Your task to perform on an android device: turn on priority inbox in the gmail app Image 0: 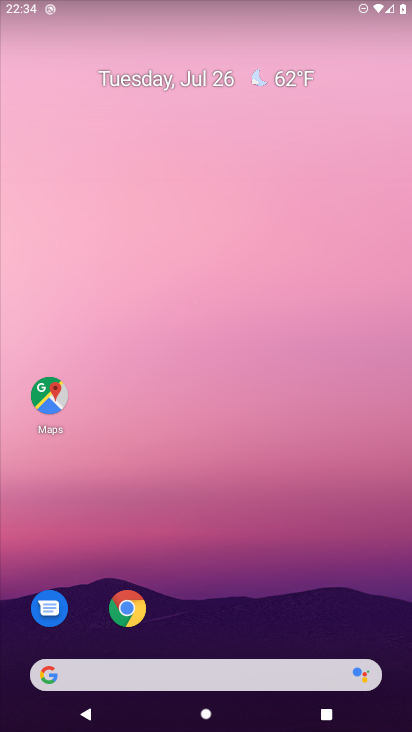
Step 0: drag from (22, 694) to (197, 192)
Your task to perform on an android device: turn on priority inbox in the gmail app Image 1: 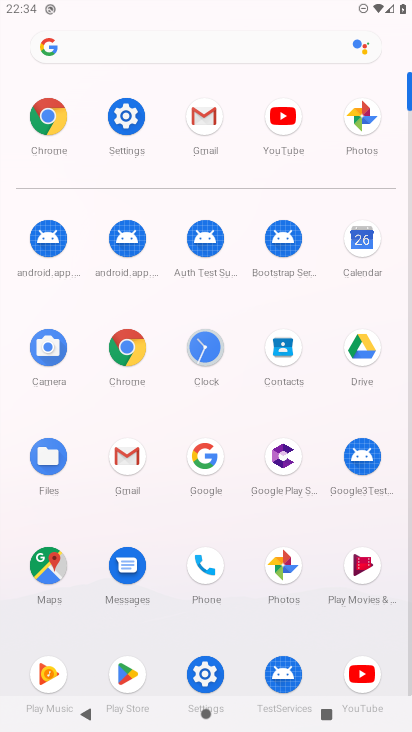
Step 1: click (123, 458)
Your task to perform on an android device: turn on priority inbox in the gmail app Image 2: 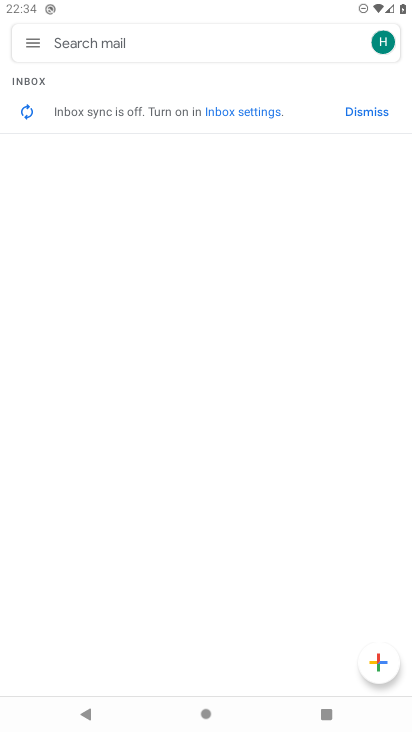
Step 2: click (35, 49)
Your task to perform on an android device: turn on priority inbox in the gmail app Image 3: 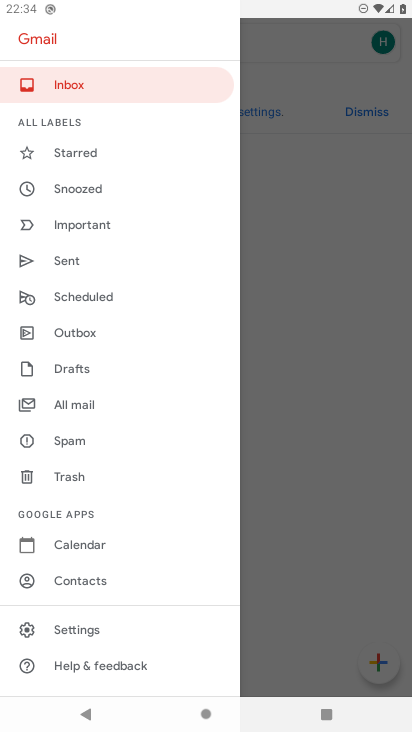
Step 3: click (89, 618)
Your task to perform on an android device: turn on priority inbox in the gmail app Image 4: 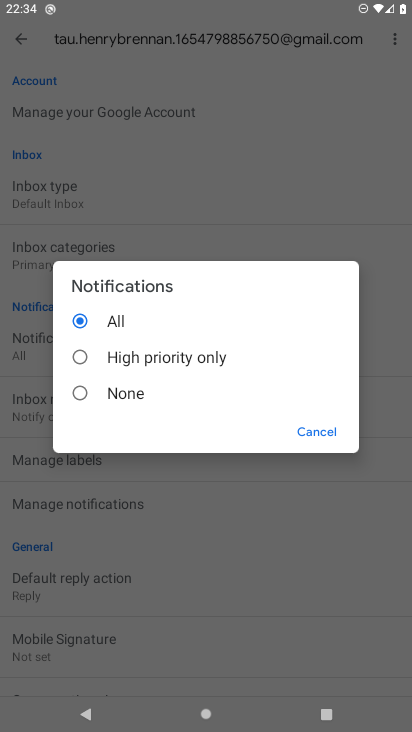
Step 4: click (307, 429)
Your task to perform on an android device: turn on priority inbox in the gmail app Image 5: 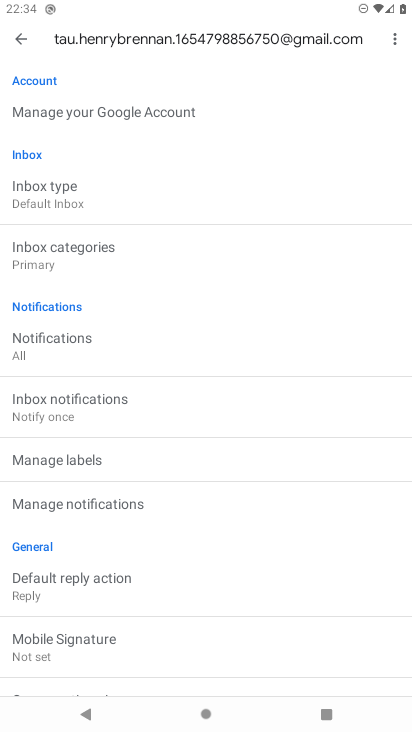
Step 5: click (61, 191)
Your task to perform on an android device: turn on priority inbox in the gmail app Image 6: 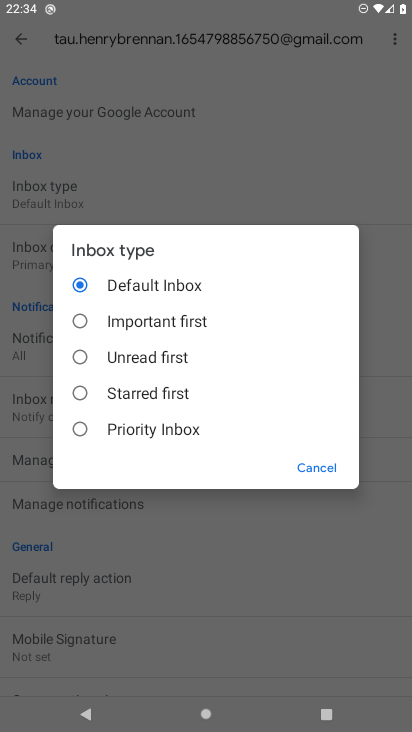
Step 6: click (85, 436)
Your task to perform on an android device: turn on priority inbox in the gmail app Image 7: 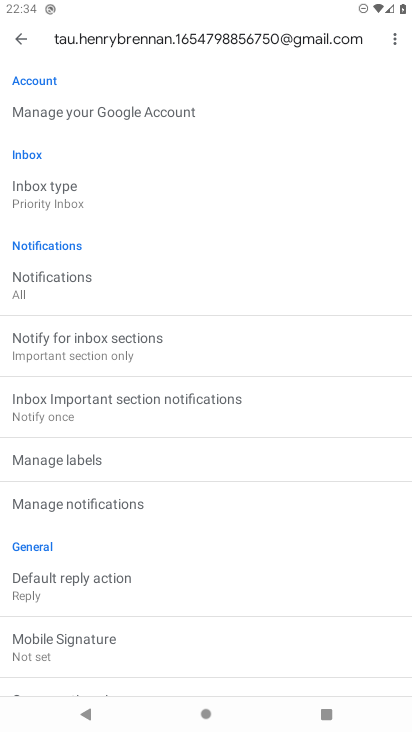
Step 7: task complete